Your task to perform on an android device: Is it going to rain this weekend? Image 0: 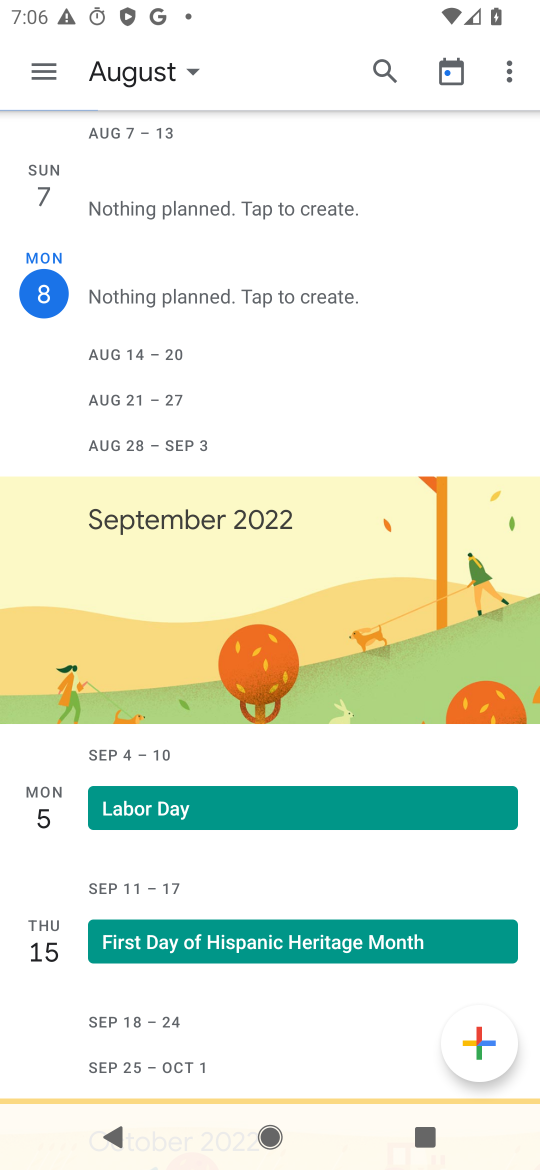
Step 0: press home button
Your task to perform on an android device: Is it going to rain this weekend? Image 1: 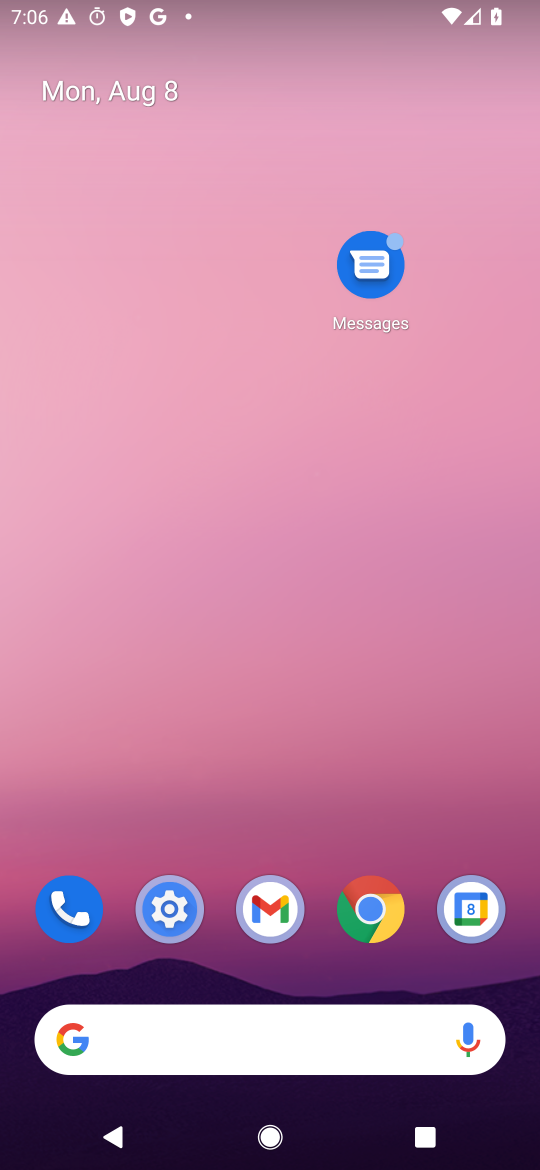
Step 1: click (185, 1039)
Your task to perform on an android device: Is it going to rain this weekend? Image 2: 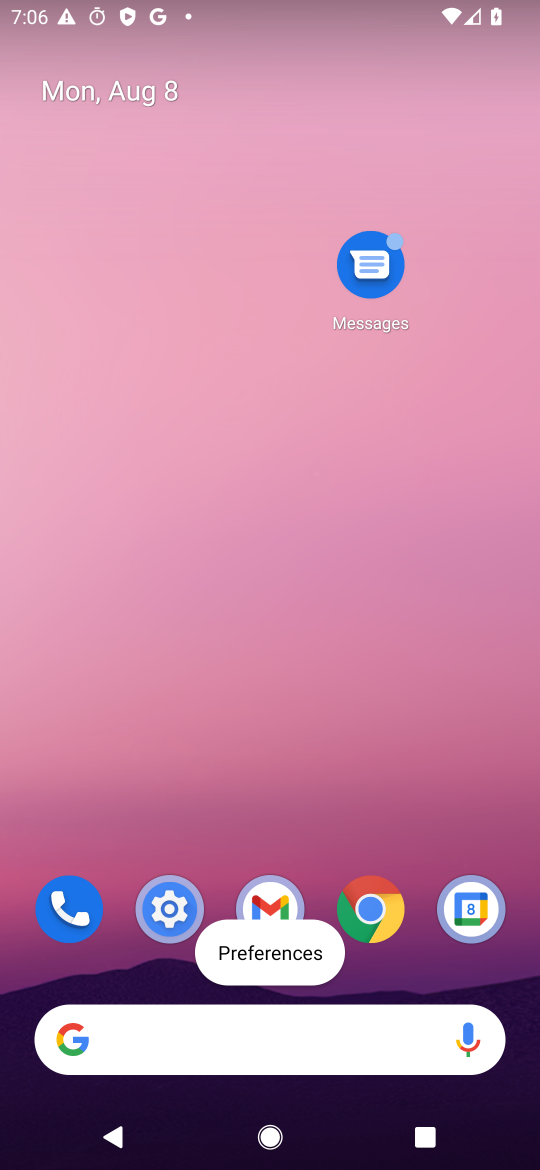
Step 2: click (185, 1039)
Your task to perform on an android device: Is it going to rain this weekend? Image 3: 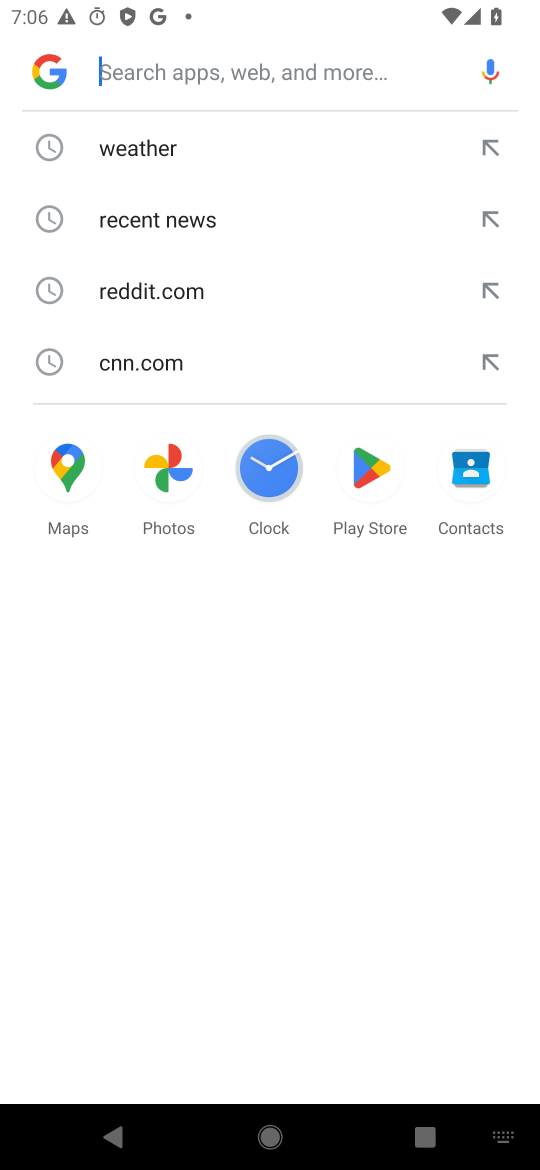
Step 3: click (149, 146)
Your task to perform on an android device: Is it going to rain this weekend? Image 4: 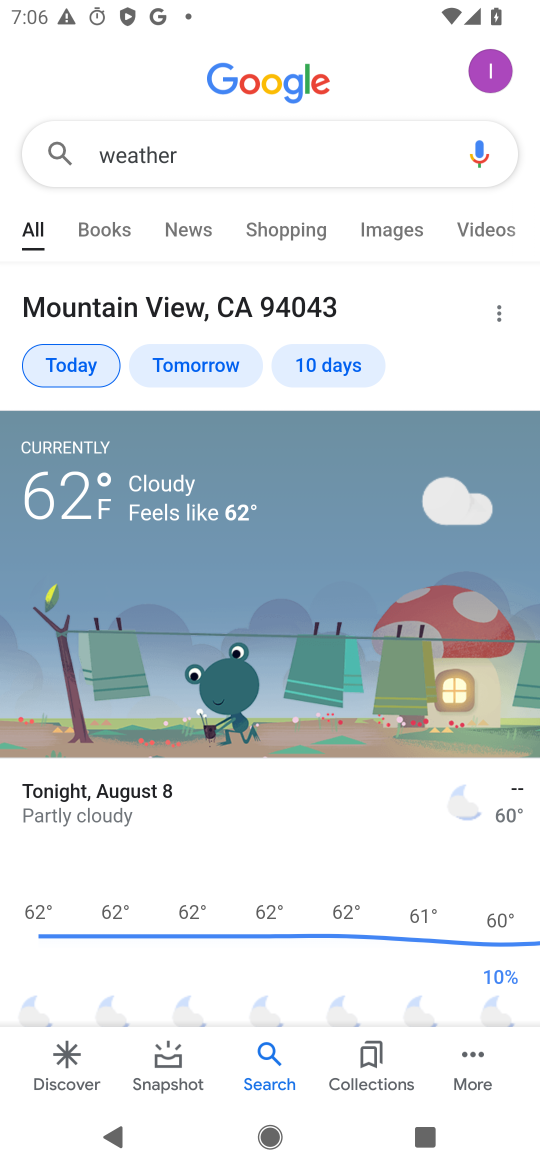
Step 4: click (328, 357)
Your task to perform on an android device: Is it going to rain this weekend? Image 5: 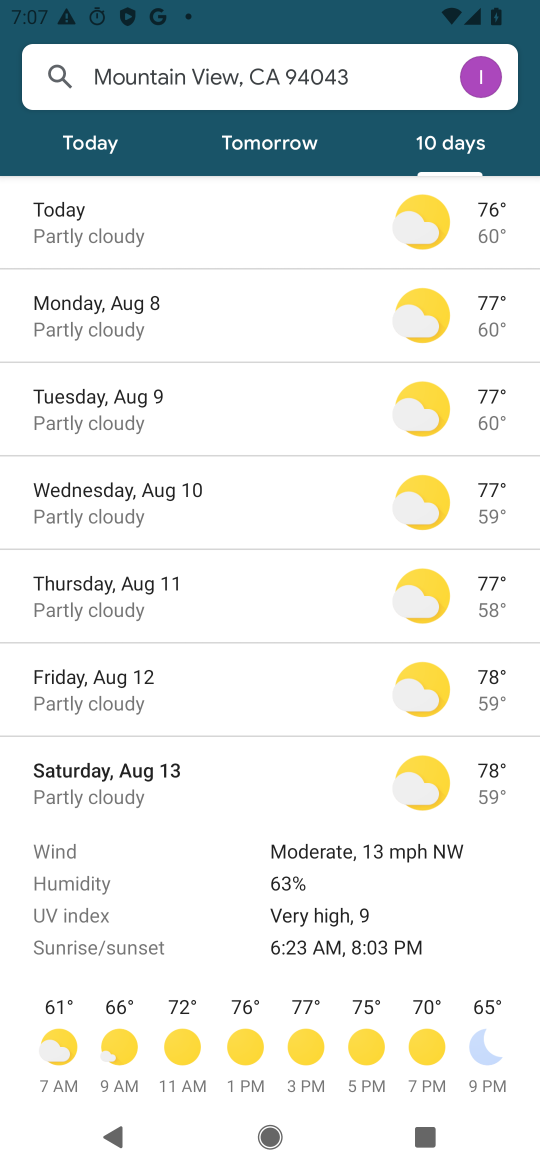
Step 5: task complete